Your task to perform on an android device: clear all cookies in the chrome app Image 0: 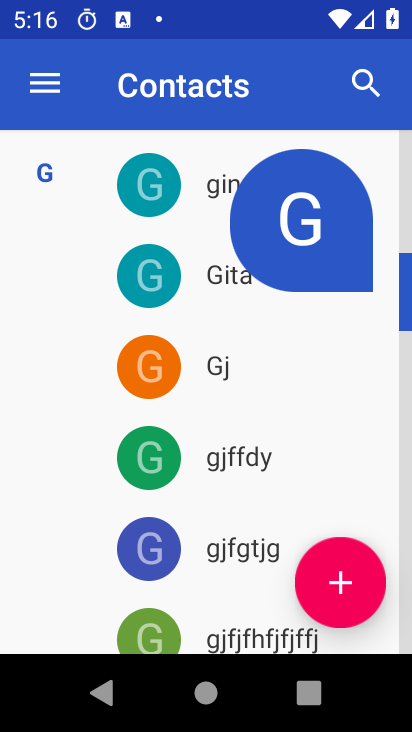
Step 0: press home button
Your task to perform on an android device: clear all cookies in the chrome app Image 1: 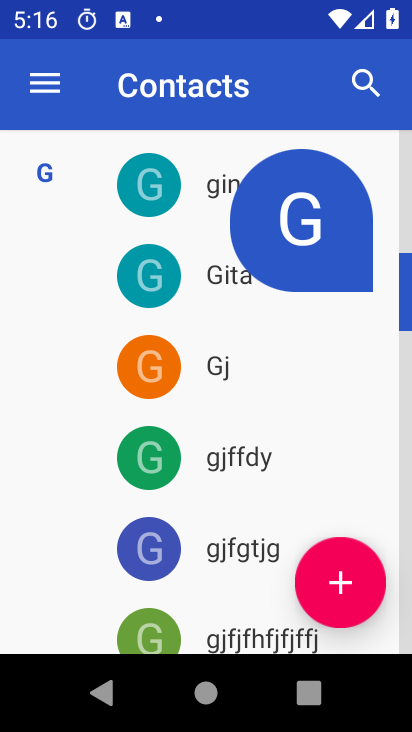
Step 1: click (399, 554)
Your task to perform on an android device: clear all cookies in the chrome app Image 2: 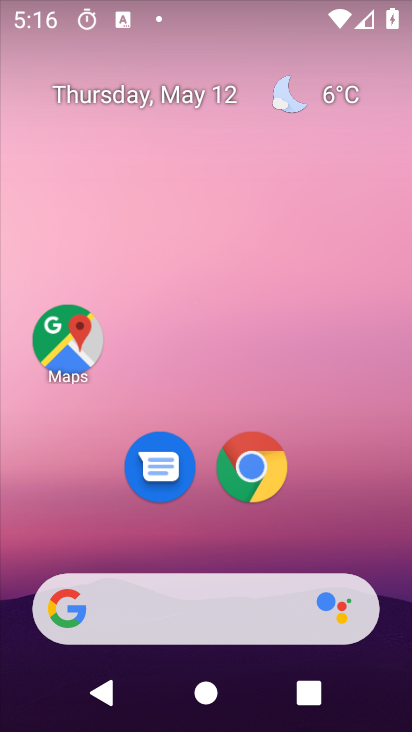
Step 2: drag from (157, 622) to (209, 90)
Your task to perform on an android device: clear all cookies in the chrome app Image 3: 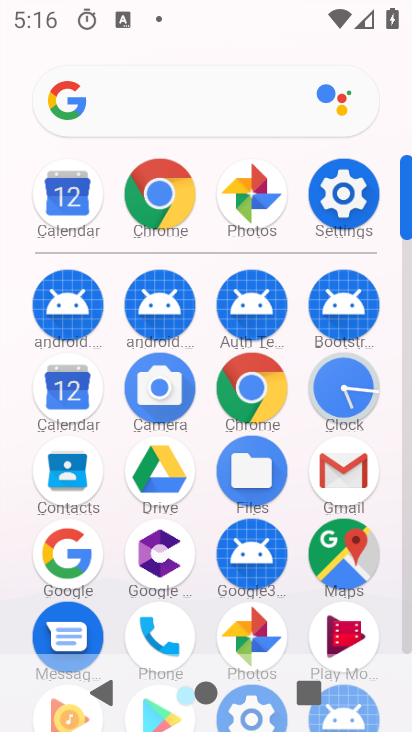
Step 3: click (275, 398)
Your task to perform on an android device: clear all cookies in the chrome app Image 4: 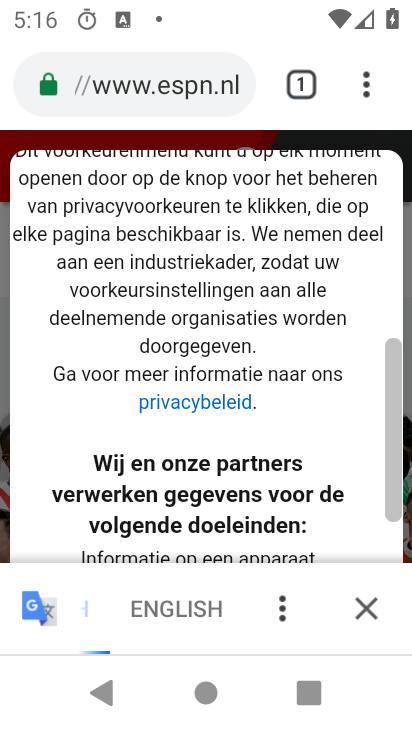
Step 4: drag from (366, 79) to (208, 531)
Your task to perform on an android device: clear all cookies in the chrome app Image 5: 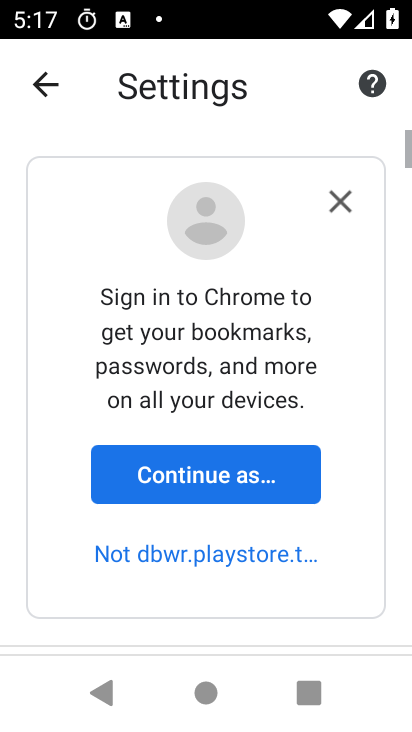
Step 5: drag from (227, 578) to (366, 10)
Your task to perform on an android device: clear all cookies in the chrome app Image 6: 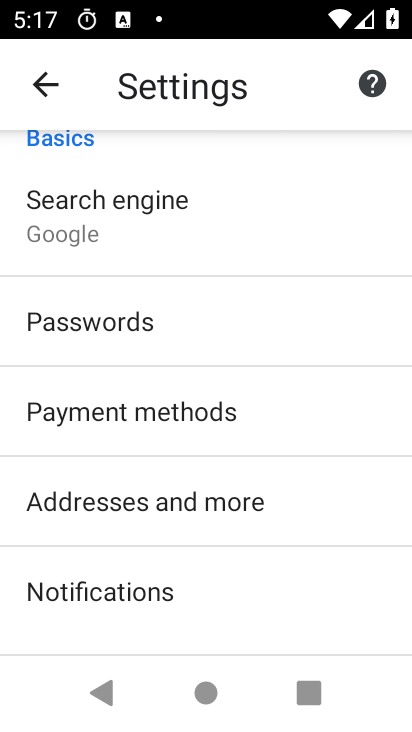
Step 6: drag from (224, 563) to (234, 253)
Your task to perform on an android device: clear all cookies in the chrome app Image 7: 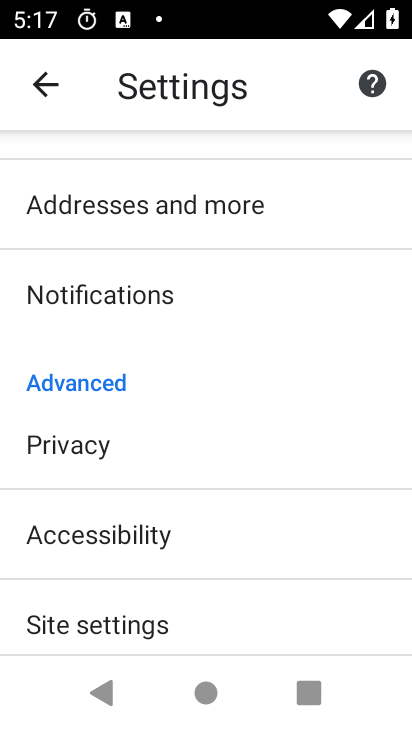
Step 7: click (133, 461)
Your task to perform on an android device: clear all cookies in the chrome app Image 8: 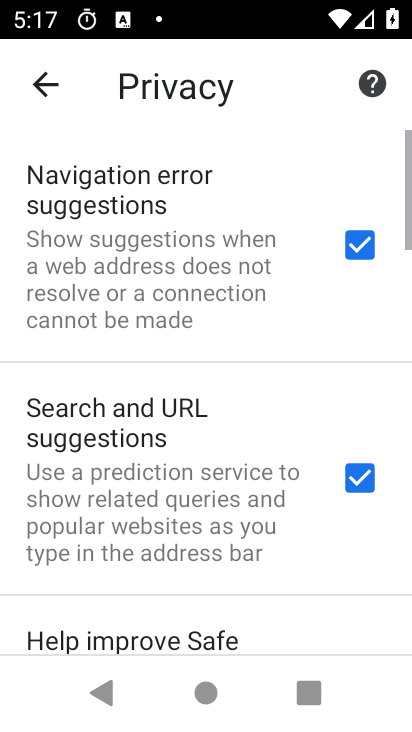
Step 8: drag from (214, 541) to (260, 37)
Your task to perform on an android device: clear all cookies in the chrome app Image 9: 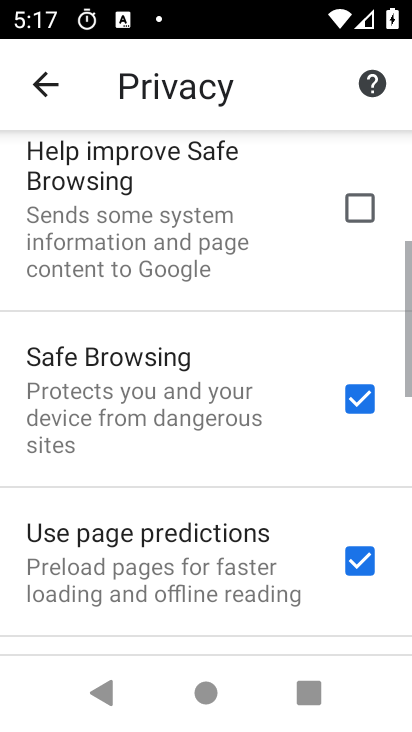
Step 9: drag from (252, 557) to (250, 130)
Your task to perform on an android device: clear all cookies in the chrome app Image 10: 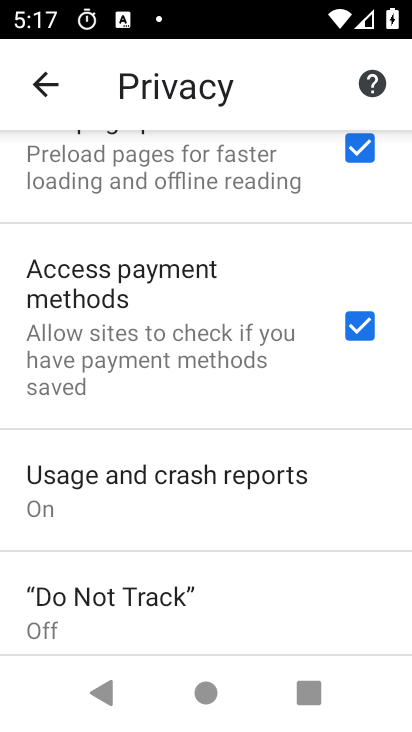
Step 10: drag from (268, 579) to (236, 115)
Your task to perform on an android device: clear all cookies in the chrome app Image 11: 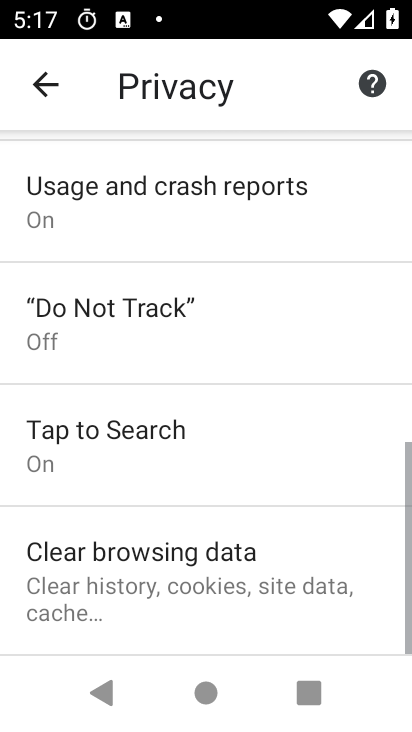
Step 11: click (311, 562)
Your task to perform on an android device: clear all cookies in the chrome app Image 12: 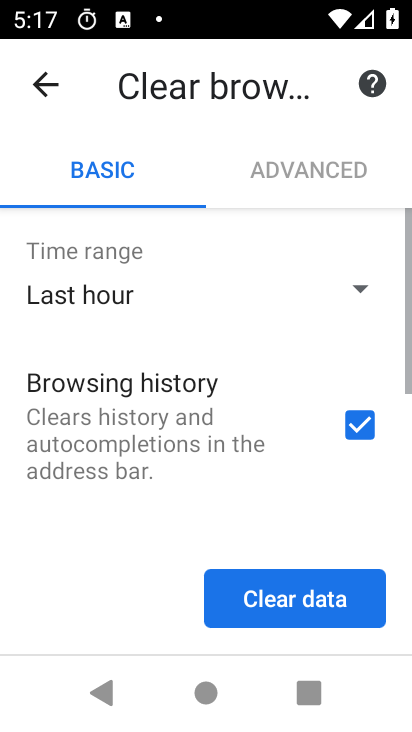
Step 12: click (277, 614)
Your task to perform on an android device: clear all cookies in the chrome app Image 13: 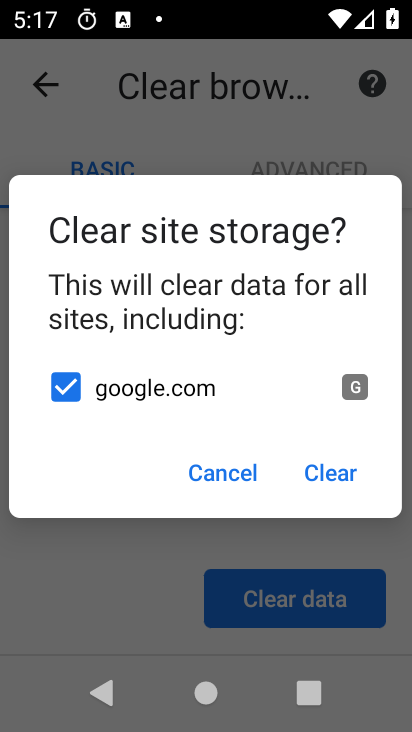
Step 13: click (326, 480)
Your task to perform on an android device: clear all cookies in the chrome app Image 14: 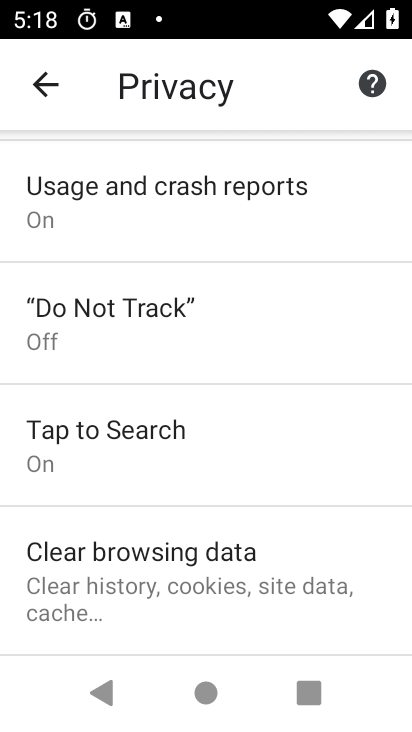
Step 14: click (124, 586)
Your task to perform on an android device: clear all cookies in the chrome app Image 15: 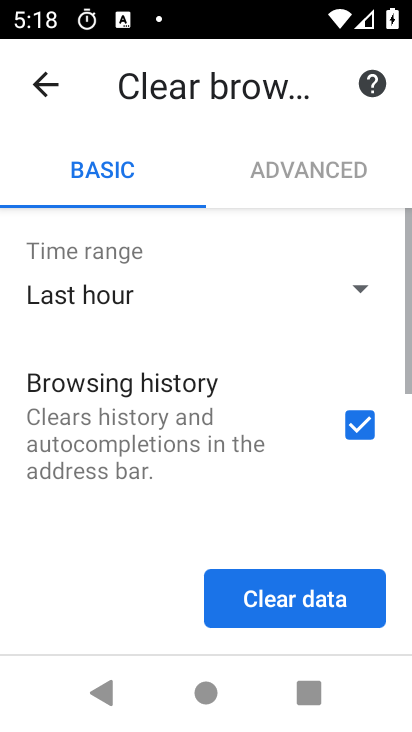
Step 15: task complete